Your task to perform on an android device: change the clock style Image 0: 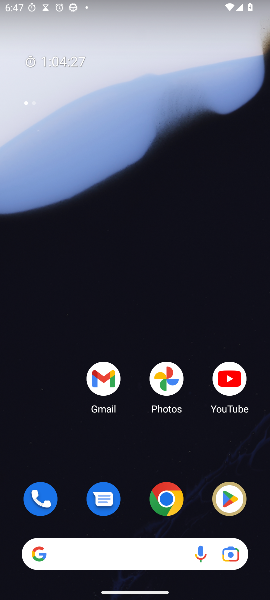
Step 0: drag from (126, 275) to (129, 6)
Your task to perform on an android device: change the clock style Image 1: 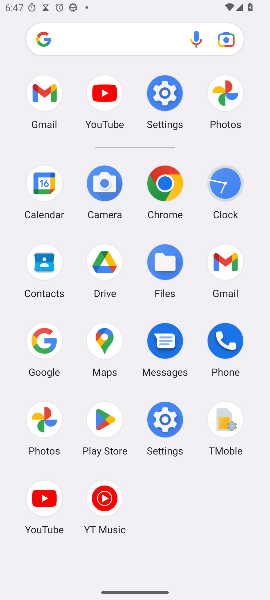
Step 1: click (227, 192)
Your task to perform on an android device: change the clock style Image 2: 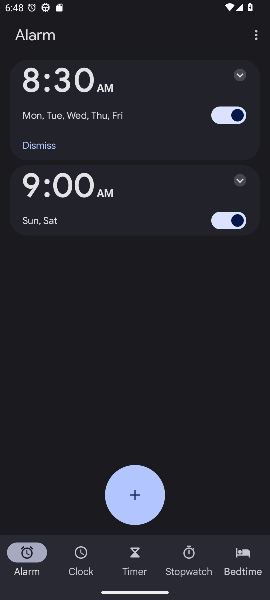
Step 2: click (256, 37)
Your task to perform on an android device: change the clock style Image 3: 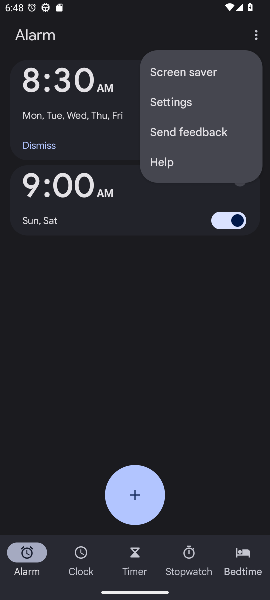
Step 3: click (177, 104)
Your task to perform on an android device: change the clock style Image 4: 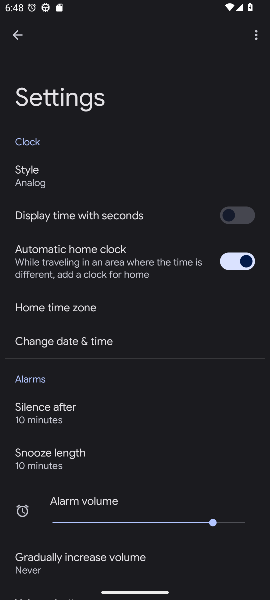
Step 4: click (34, 179)
Your task to perform on an android device: change the clock style Image 5: 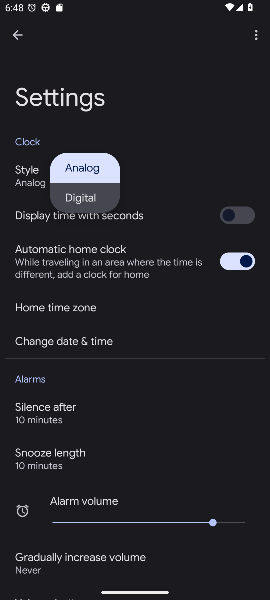
Step 5: click (86, 195)
Your task to perform on an android device: change the clock style Image 6: 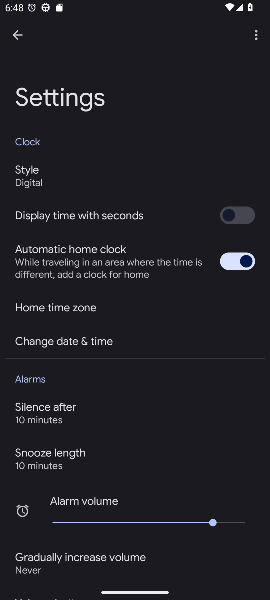
Step 6: task complete